Your task to perform on an android device: turn off data saver in the chrome app Image 0: 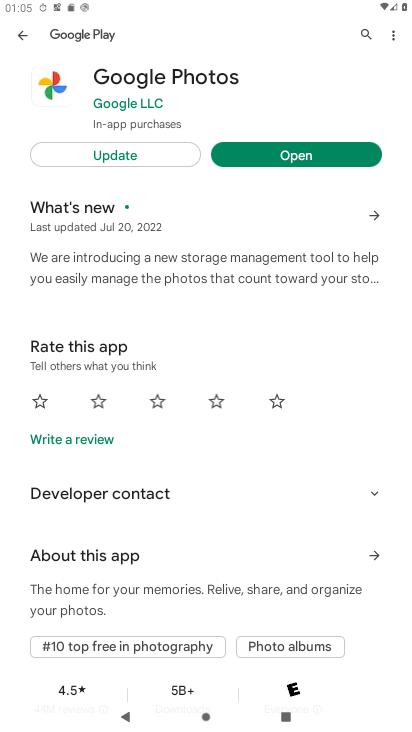
Step 0: press home button
Your task to perform on an android device: turn off data saver in the chrome app Image 1: 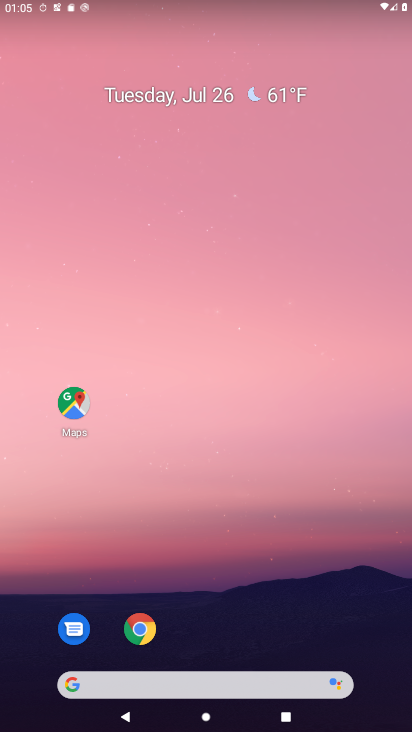
Step 1: click (141, 636)
Your task to perform on an android device: turn off data saver in the chrome app Image 2: 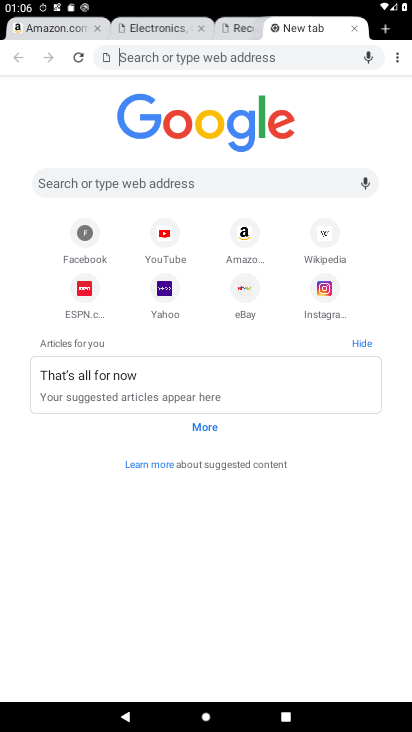
Step 2: click (397, 58)
Your task to perform on an android device: turn off data saver in the chrome app Image 3: 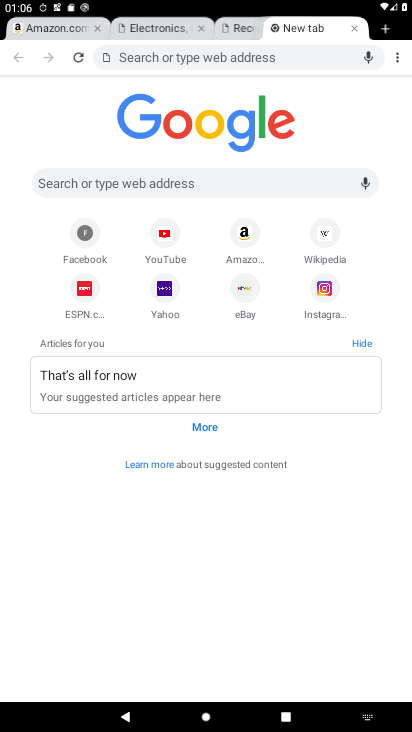
Step 3: drag from (397, 58) to (308, 259)
Your task to perform on an android device: turn off data saver in the chrome app Image 4: 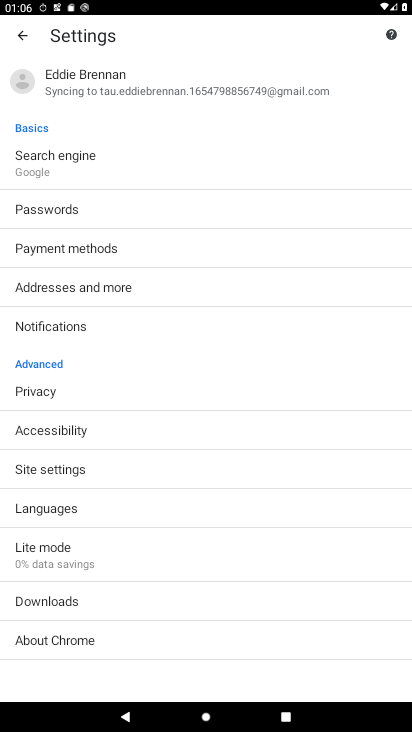
Step 4: click (101, 560)
Your task to perform on an android device: turn off data saver in the chrome app Image 5: 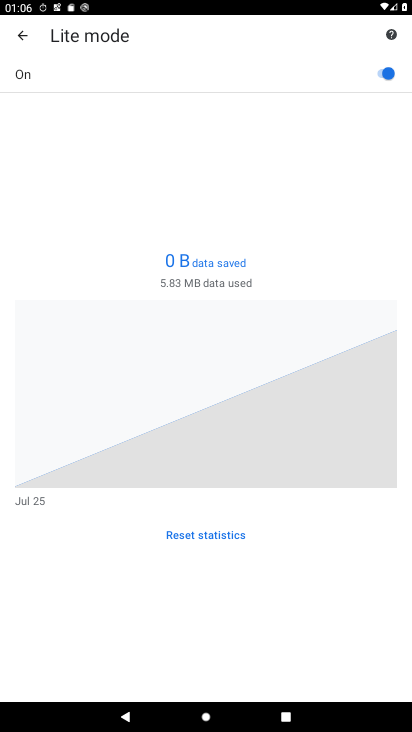
Step 5: click (368, 62)
Your task to perform on an android device: turn off data saver in the chrome app Image 6: 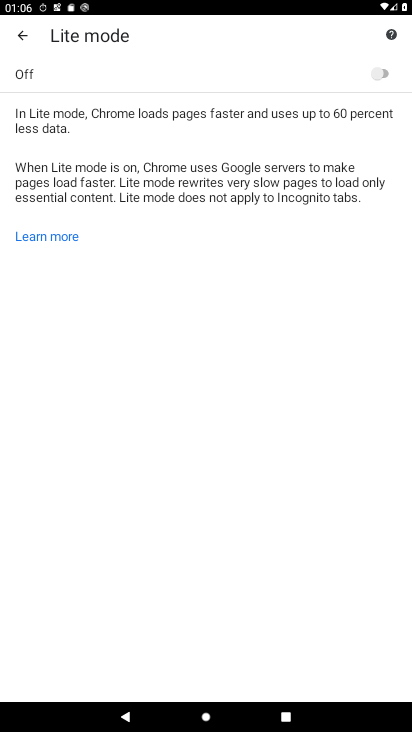
Step 6: task complete